Your task to perform on an android device: Empty the shopping cart on walmart.com. Search for logitech g502 on walmart.com, select the first entry, and add it to the cart. Image 0: 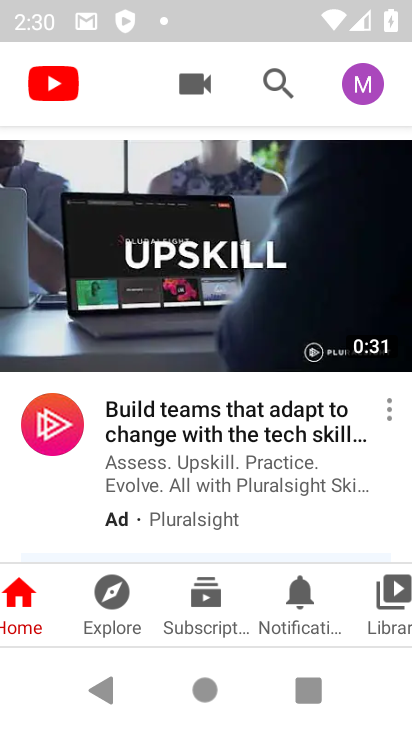
Step 0: task complete